Your task to perform on an android device: toggle show notifications on the lock screen Image 0: 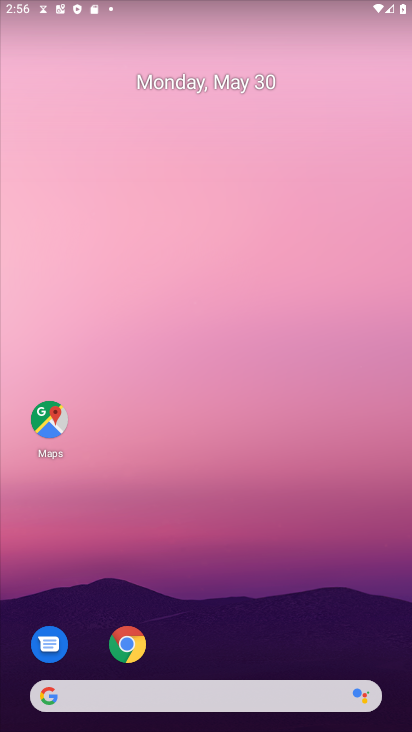
Step 0: drag from (309, 652) to (329, 237)
Your task to perform on an android device: toggle show notifications on the lock screen Image 1: 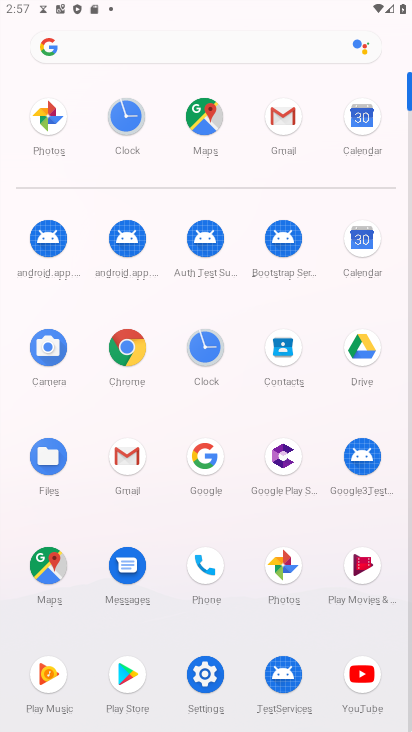
Step 1: click (213, 674)
Your task to perform on an android device: toggle show notifications on the lock screen Image 2: 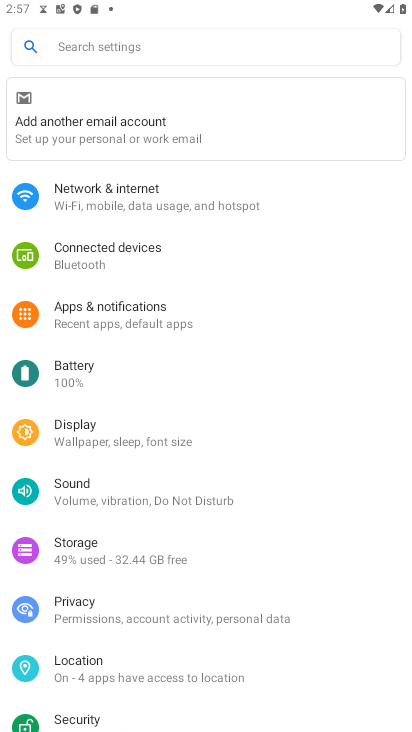
Step 2: click (110, 313)
Your task to perform on an android device: toggle show notifications on the lock screen Image 3: 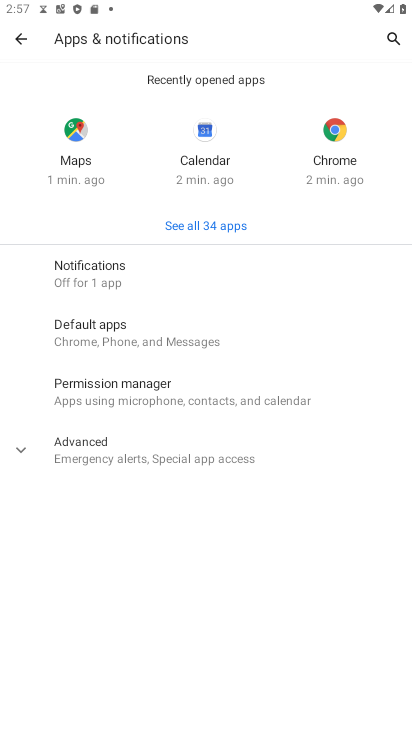
Step 3: click (95, 284)
Your task to perform on an android device: toggle show notifications on the lock screen Image 4: 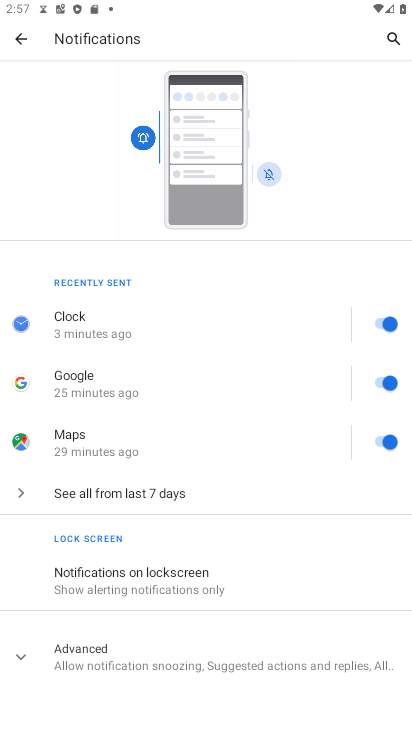
Step 4: click (112, 585)
Your task to perform on an android device: toggle show notifications on the lock screen Image 5: 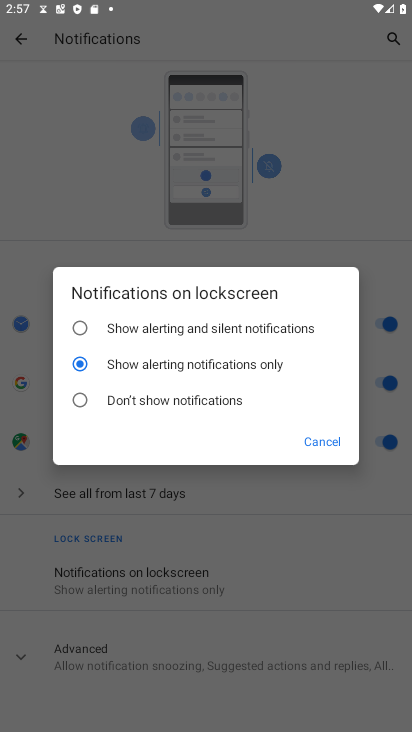
Step 5: click (81, 327)
Your task to perform on an android device: toggle show notifications on the lock screen Image 6: 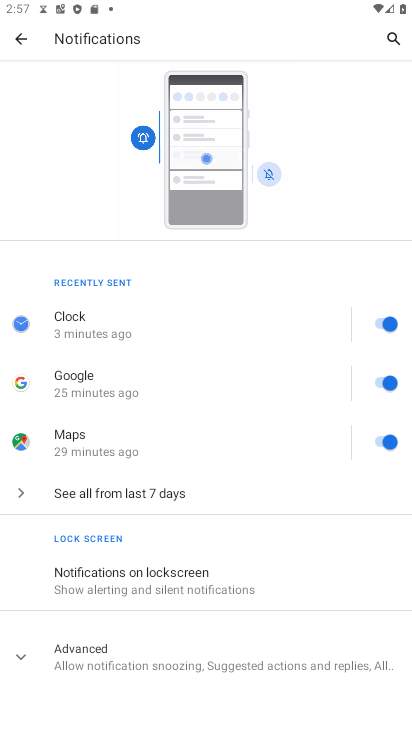
Step 6: task complete